Your task to perform on an android device: What's the weather going to be tomorrow? Image 0: 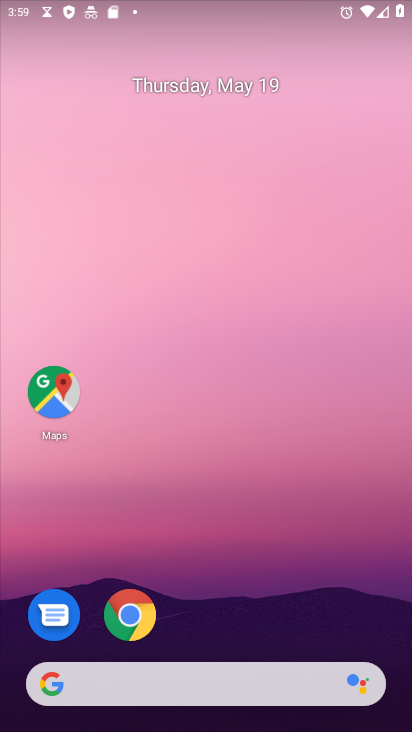
Step 0: click (397, 345)
Your task to perform on an android device: What's the weather going to be tomorrow? Image 1: 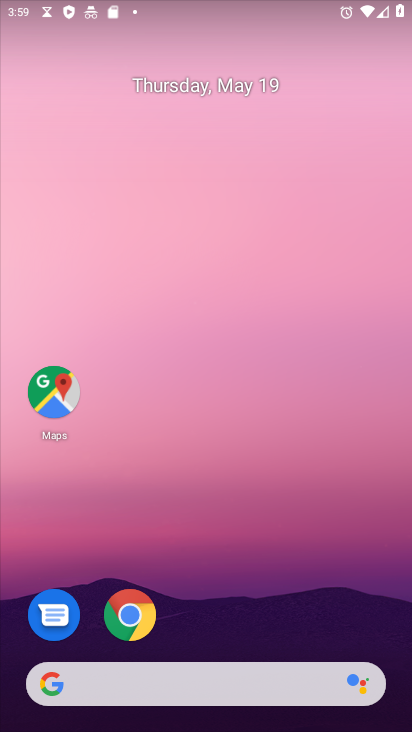
Step 1: drag from (331, 640) to (222, 111)
Your task to perform on an android device: What's the weather going to be tomorrow? Image 2: 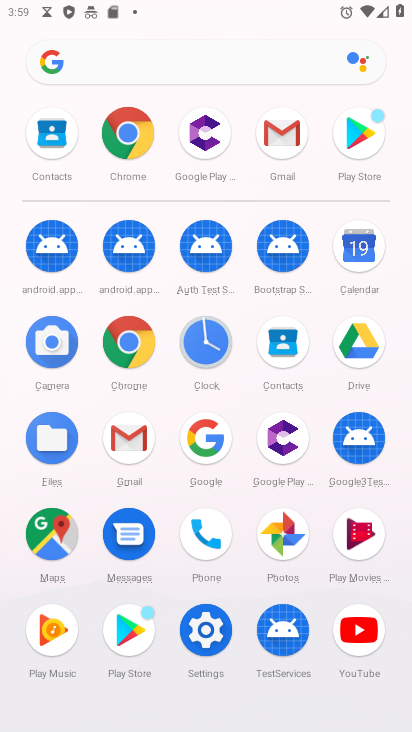
Step 2: press back button
Your task to perform on an android device: What's the weather going to be tomorrow? Image 3: 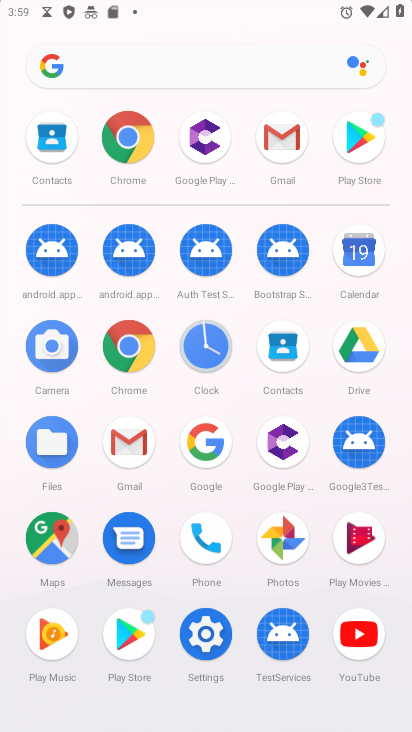
Step 3: press back button
Your task to perform on an android device: What's the weather going to be tomorrow? Image 4: 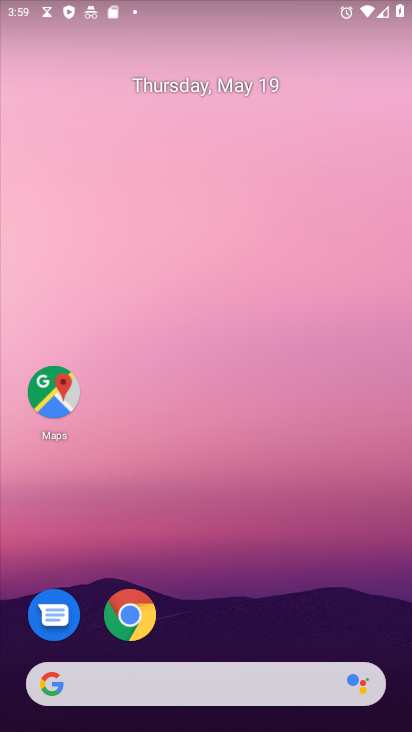
Step 4: press back button
Your task to perform on an android device: What's the weather going to be tomorrow? Image 5: 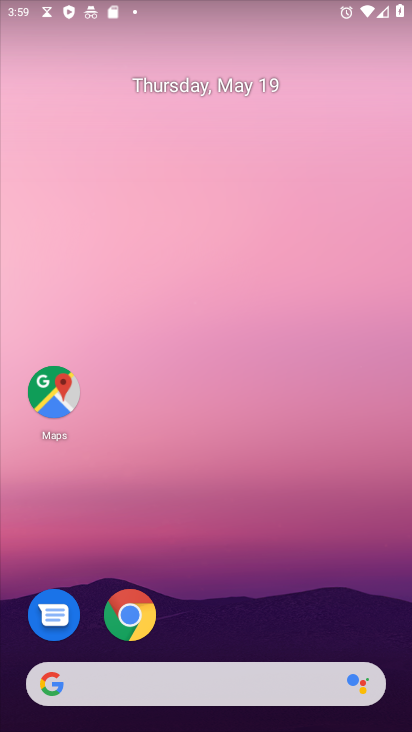
Step 5: drag from (2, 151) to (401, 8)
Your task to perform on an android device: What's the weather going to be tomorrow? Image 6: 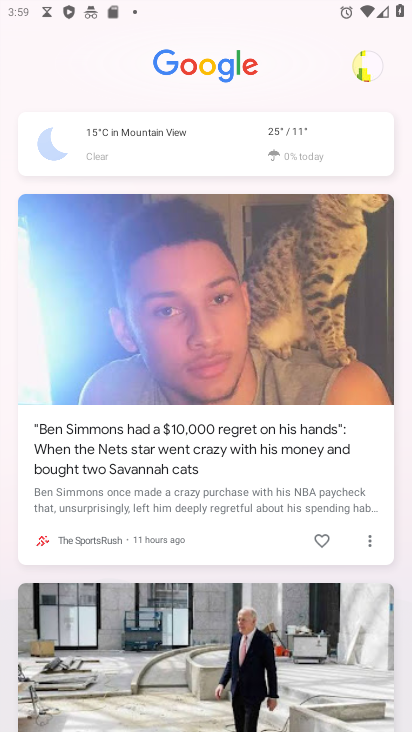
Step 6: click (162, 146)
Your task to perform on an android device: What's the weather going to be tomorrow? Image 7: 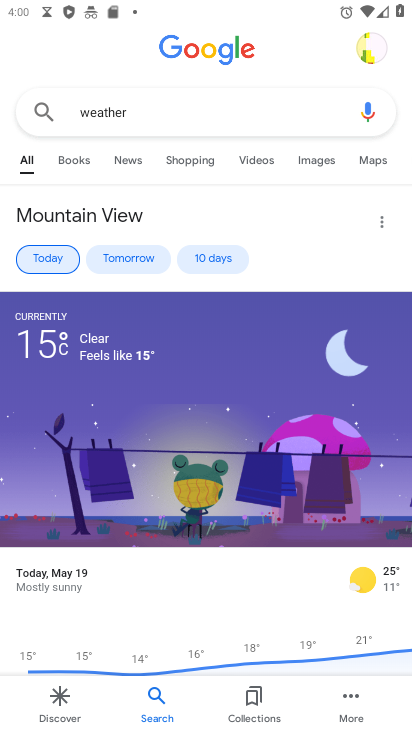
Step 7: task complete